Your task to perform on an android device: toggle location history Image 0: 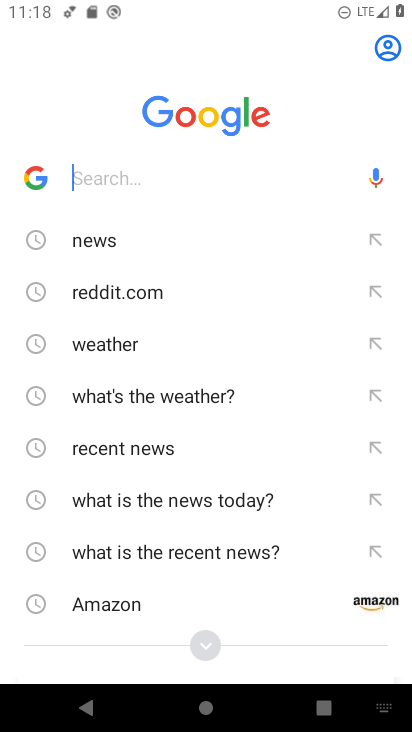
Step 0: press home button
Your task to perform on an android device: toggle location history Image 1: 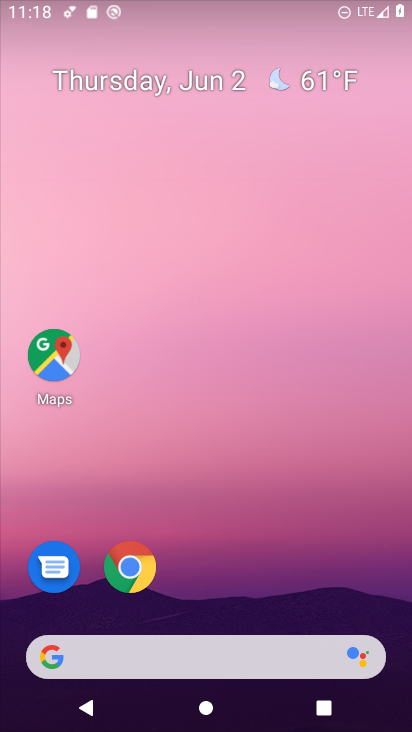
Step 1: drag from (289, 505) to (249, 123)
Your task to perform on an android device: toggle location history Image 2: 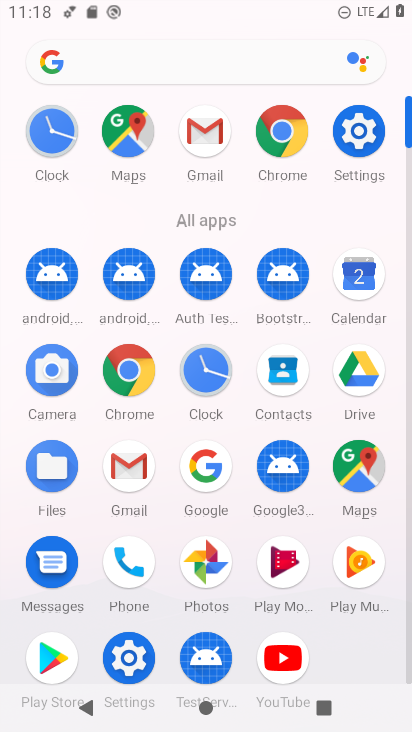
Step 2: click (339, 170)
Your task to perform on an android device: toggle location history Image 3: 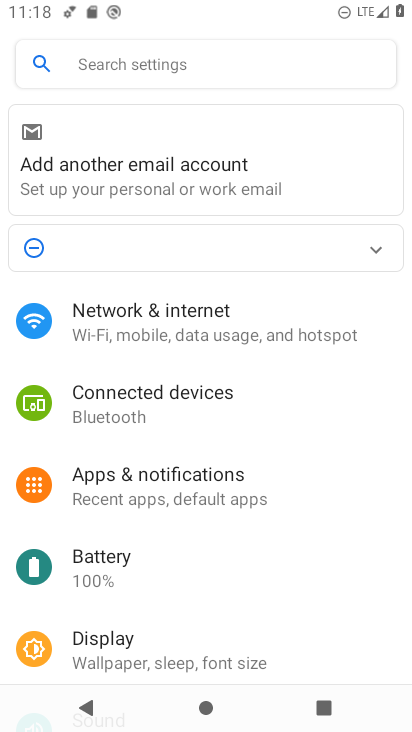
Step 3: drag from (265, 483) to (282, 88)
Your task to perform on an android device: toggle location history Image 4: 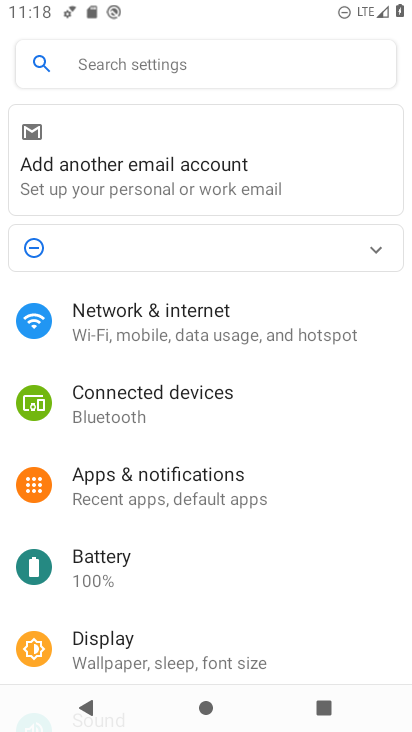
Step 4: drag from (230, 557) to (267, 254)
Your task to perform on an android device: toggle location history Image 5: 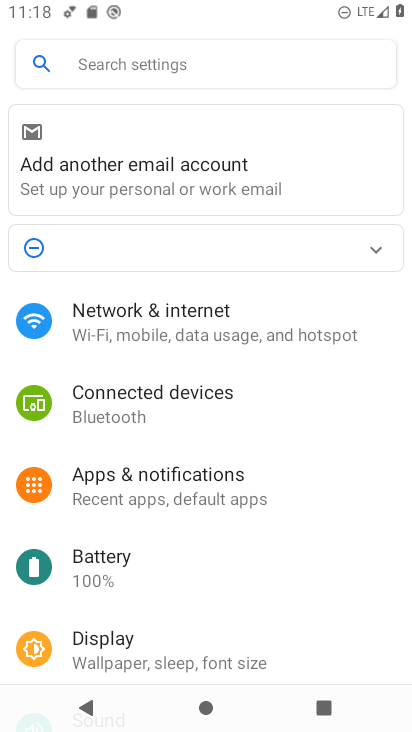
Step 5: drag from (291, 597) to (242, 216)
Your task to perform on an android device: toggle location history Image 6: 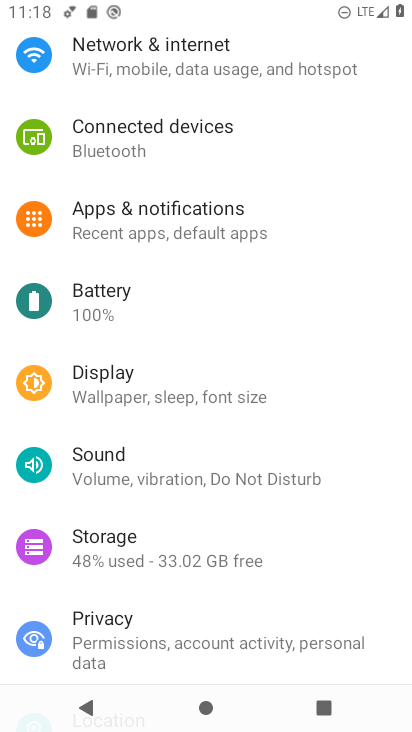
Step 6: drag from (202, 539) to (256, 199)
Your task to perform on an android device: toggle location history Image 7: 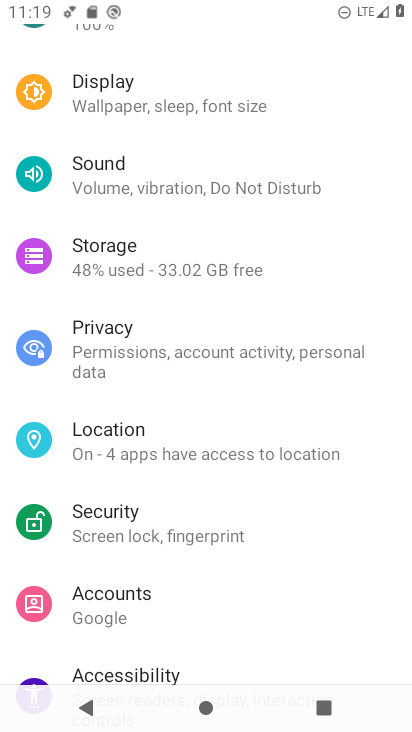
Step 7: click (142, 426)
Your task to perform on an android device: toggle location history Image 8: 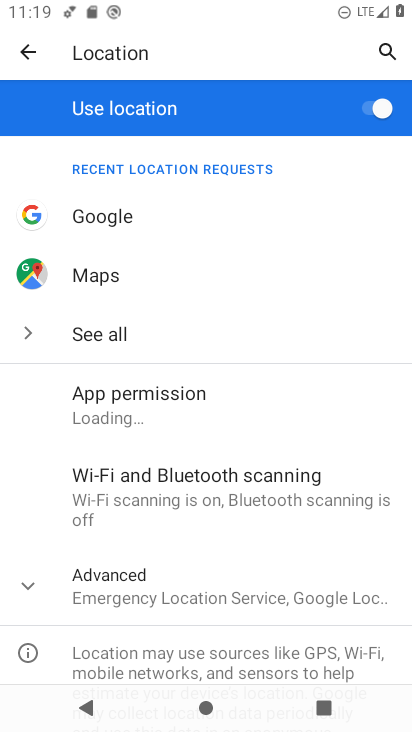
Step 8: click (80, 584)
Your task to perform on an android device: toggle location history Image 9: 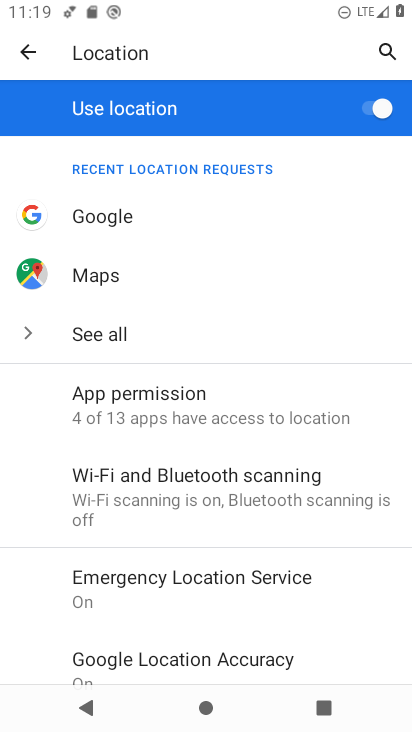
Step 9: drag from (207, 600) to (207, 227)
Your task to perform on an android device: toggle location history Image 10: 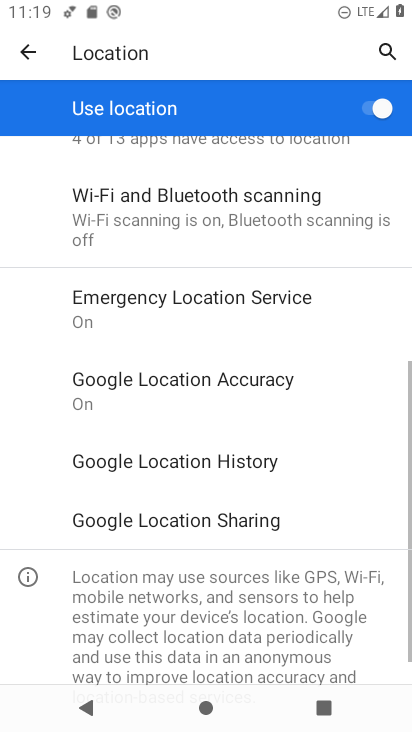
Step 10: click (208, 222)
Your task to perform on an android device: toggle location history Image 11: 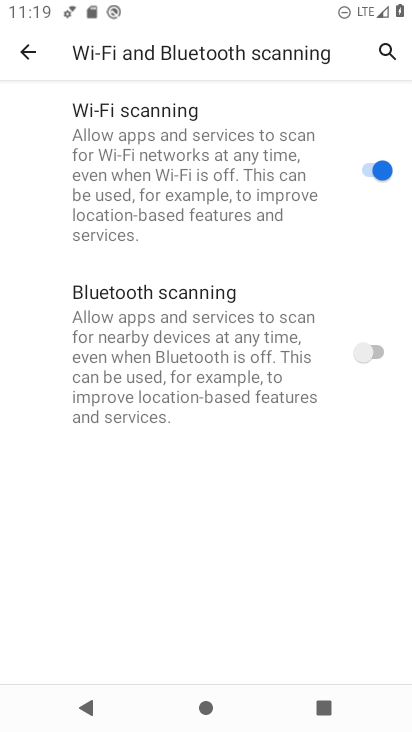
Step 11: click (31, 51)
Your task to perform on an android device: toggle location history Image 12: 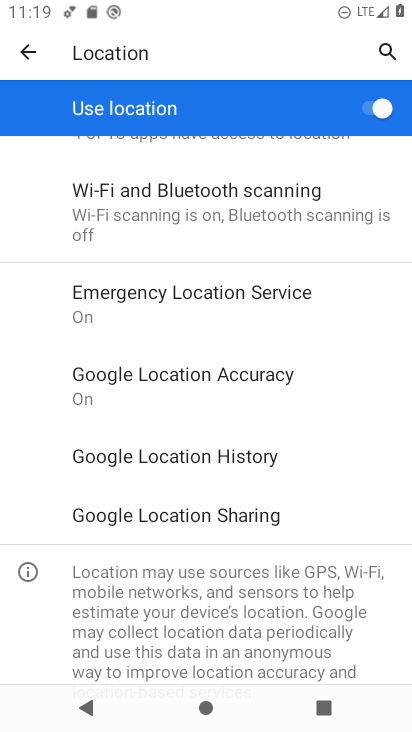
Step 12: click (208, 451)
Your task to perform on an android device: toggle location history Image 13: 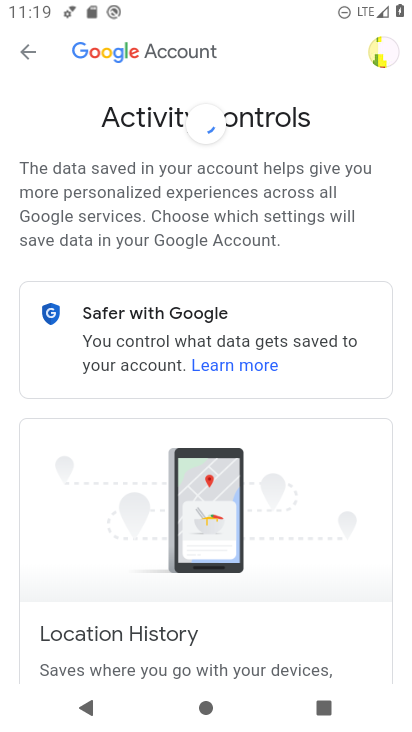
Step 13: drag from (297, 540) to (314, 129)
Your task to perform on an android device: toggle location history Image 14: 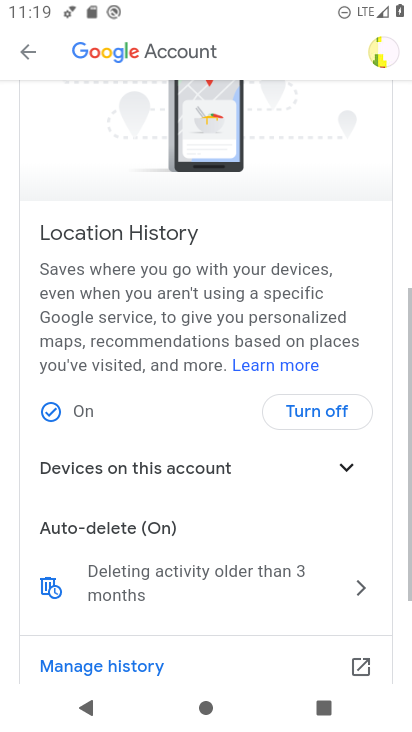
Step 14: click (314, 124)
Your task to perform on an android device: toggle location history Image 15: 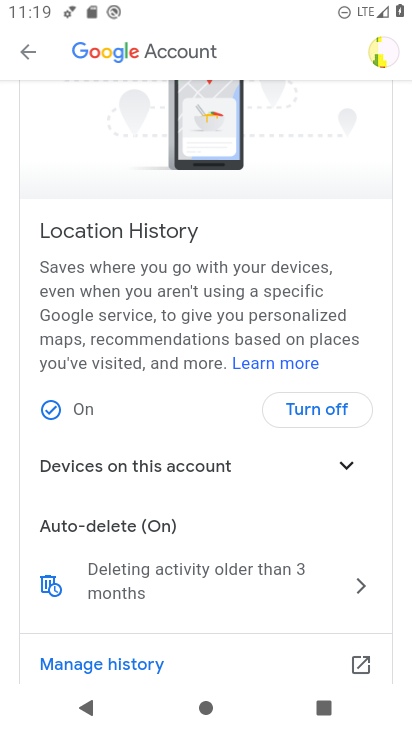
Step 15: click (309, 398)
Your task to perform on an android device: toggle location history Image 16: 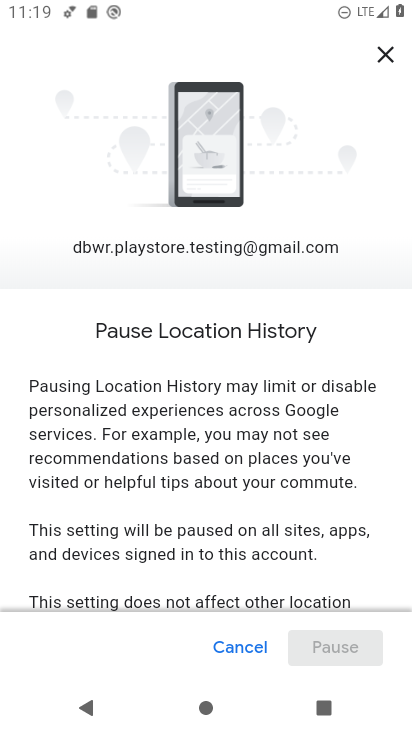
Step 16: drag from (268, 497) to (283, 91)
Your task to perform on an android device: toggle location history Image 17: 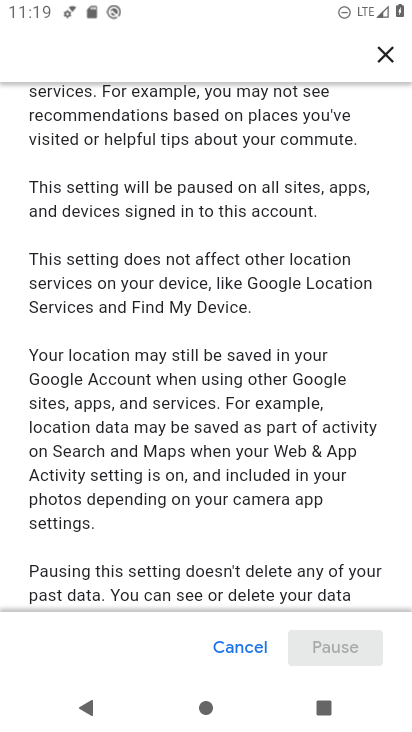
Step 17: click (283, 90)
Your task to perform on an android device: toggle location history Image 18: 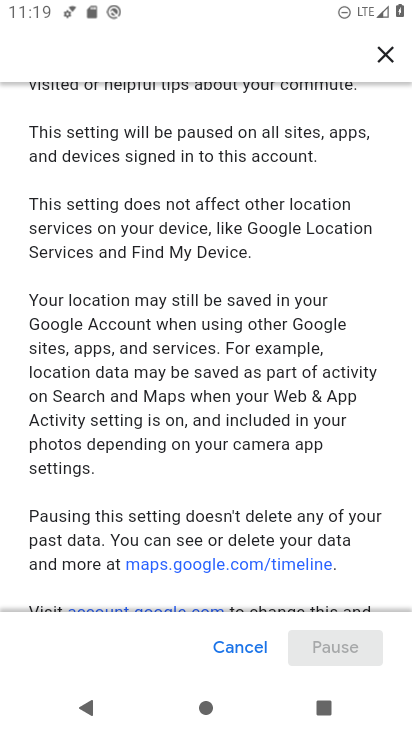
Step 18: drag from (291, 517) to (307, 167)
Your task to perform on an android device: toggle location history Image 19: 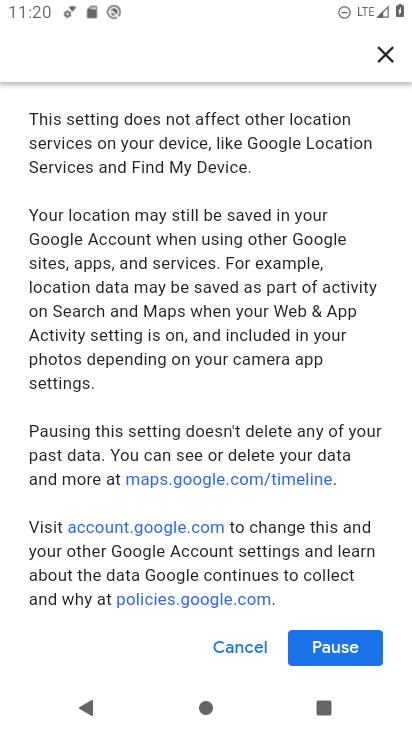
Step 19: click (322, 657)
Your task to perform on an android device: toggle location history Image 20: 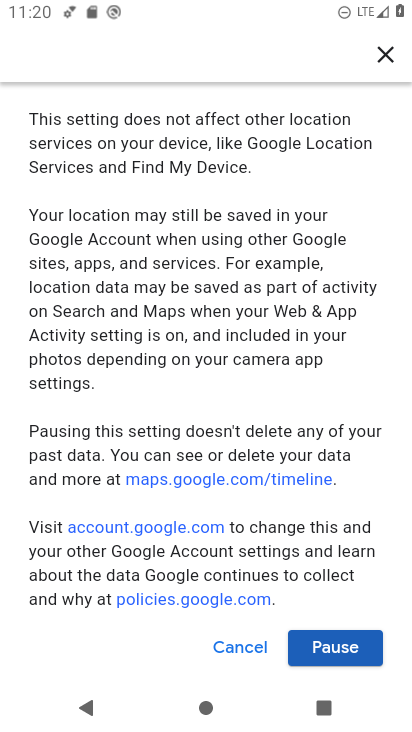
Step 20: click (353, 651)
Your task to perform on an android device: toggle location history Image 21: 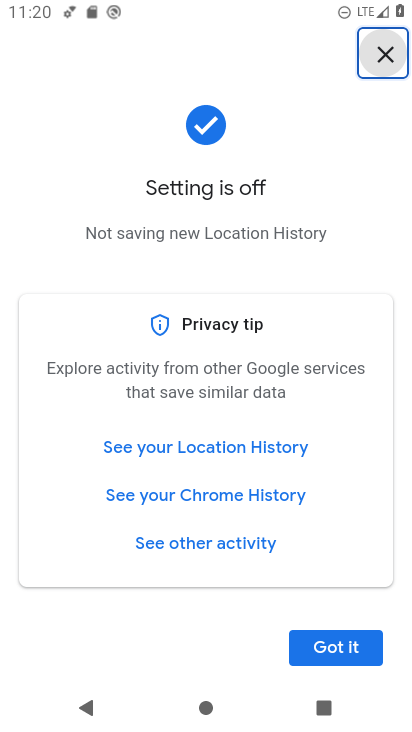
Step 21: task complete